Your task to perform on an android device: all mails in gmail Image 0: 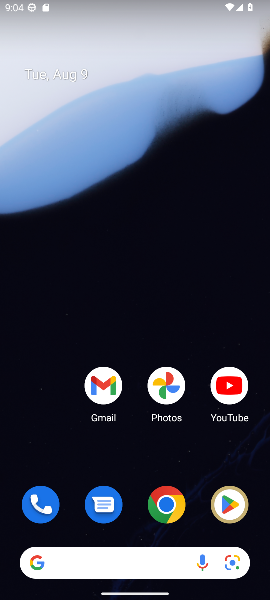
Step 0: click (103, 383)
Your task to perform on an android device: all mails in gmail Image 1: 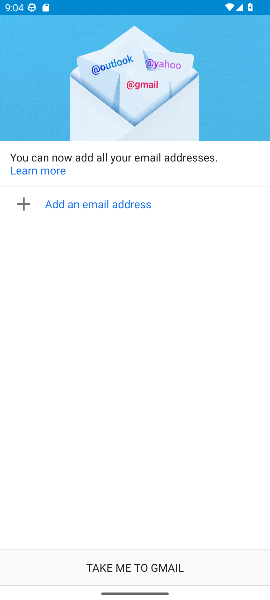
Step 1: click (148, 562)
Your task to perform on an android device: all mails in gmail Image 2: 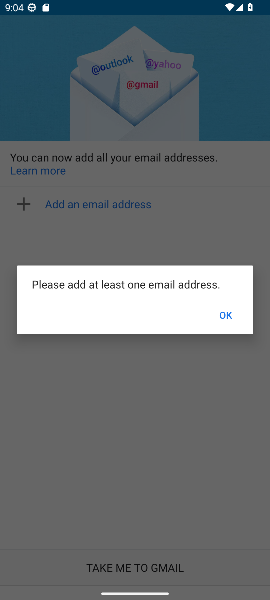
Step 2: task complete